Your task to perform on an android device: turn off picture-in-picture Image 0: 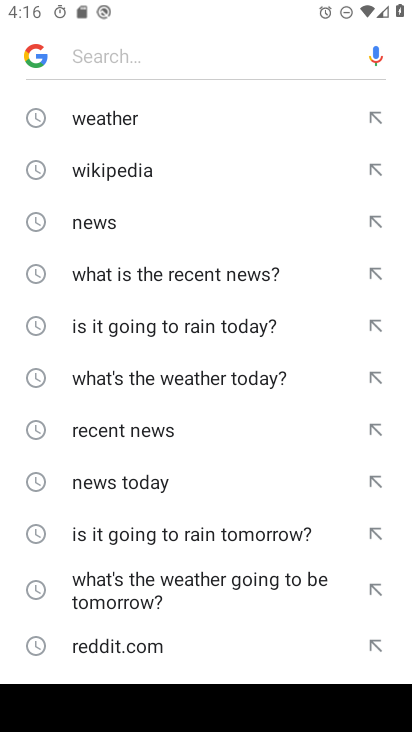
Step 0: click (226, 644)
Your task to perform on an android device: turn off picture-in-picture Image 1: 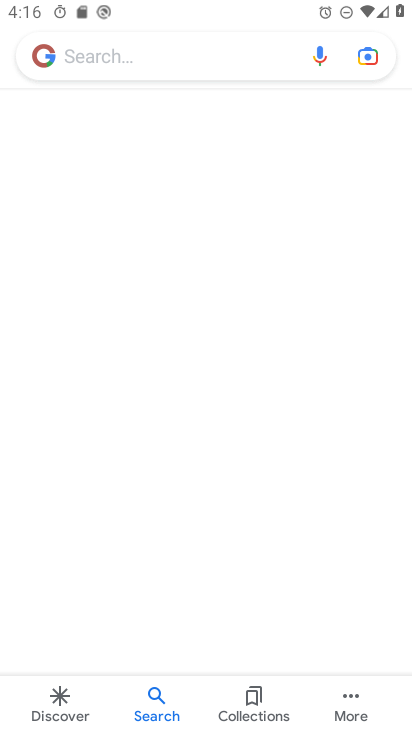
Step 1: press home button
Your task to perform on an android device: turn off picture-in-picture Image 2: 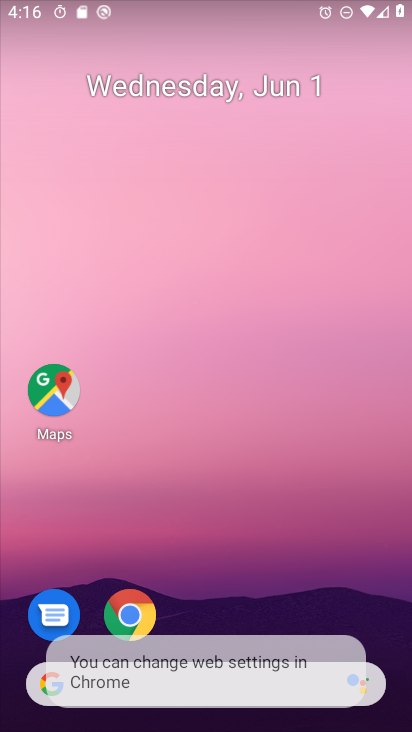
Step 2: drag from (329, 618) to (393, 53)
Your task to perform on an android device: turn off picture-in-picture Image 3: 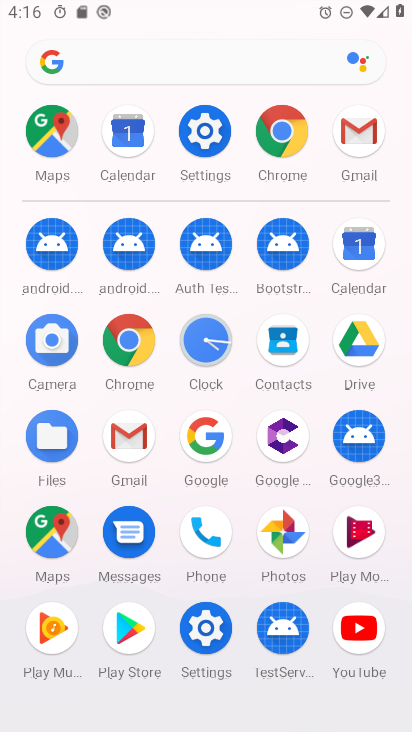
Step 3: click (189, 139)
Your task to perform on an android device: turn off picture-in-picture Image 4: 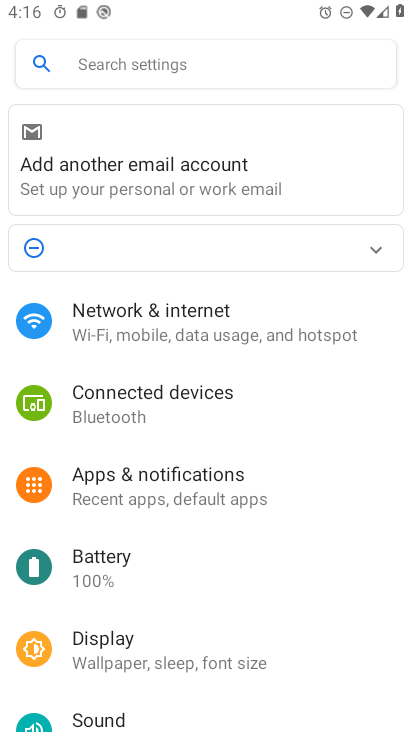
Step 4: click (232, 492)
Your task to perform on an android device: turn off picture-in-picture Image 5: 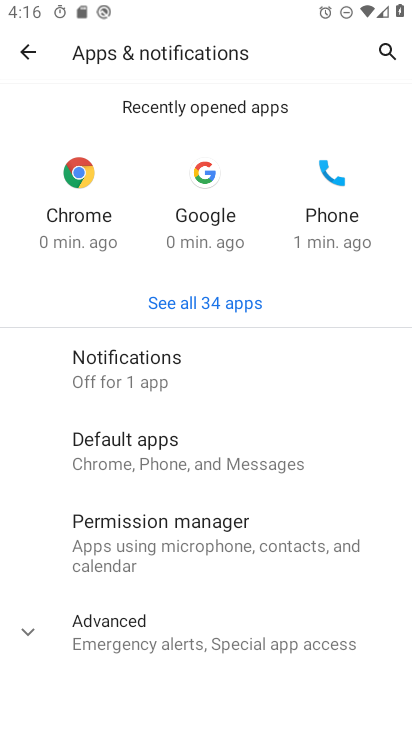
Step 5: click (192, 646)
Your task to perform on an android device: turn off picture-in-picture Image 6: 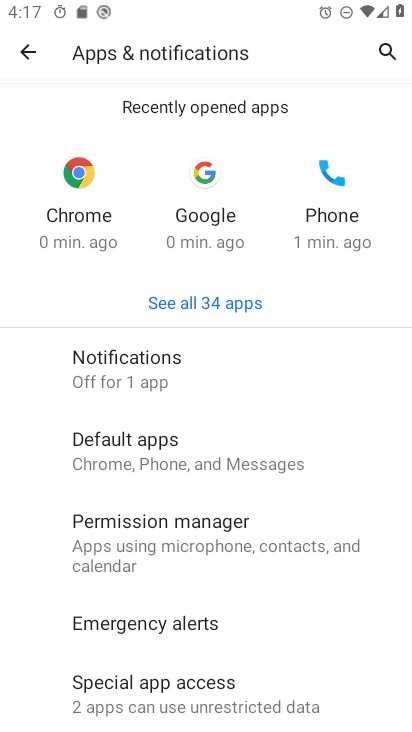
Step 6: click (217, 673)
Your task to perform on an android device: turn off picture-in-picture Image 7: 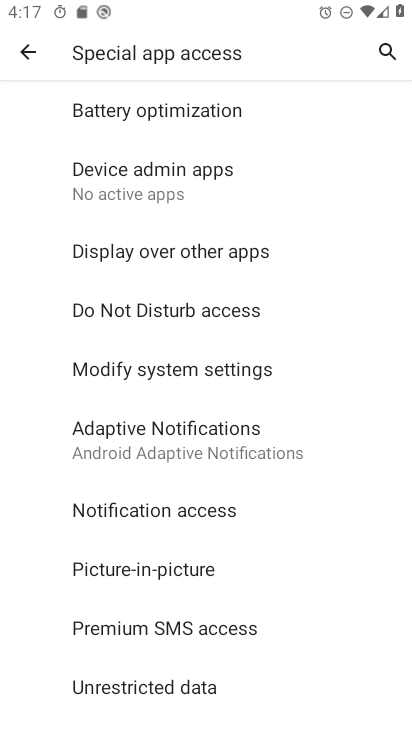
Step 7: click (182, 573)
Your task to perform on an android device: turn off picture-in-picture Image 8: 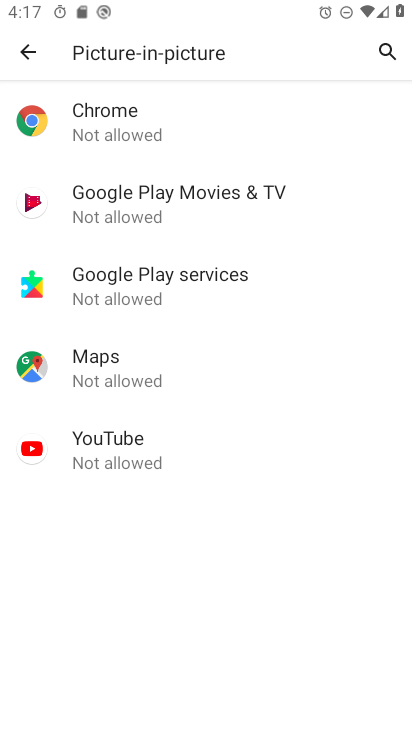
Step 8: task complete